Your task to perform on an android device: Open display settings Image 0: 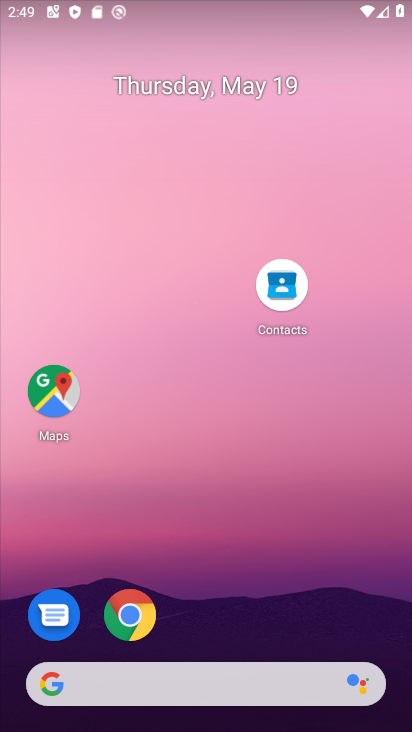
Step 0: drag from (219, 638) to (265, 196)
Your task to perform on an android device: Open display settings Image 1: 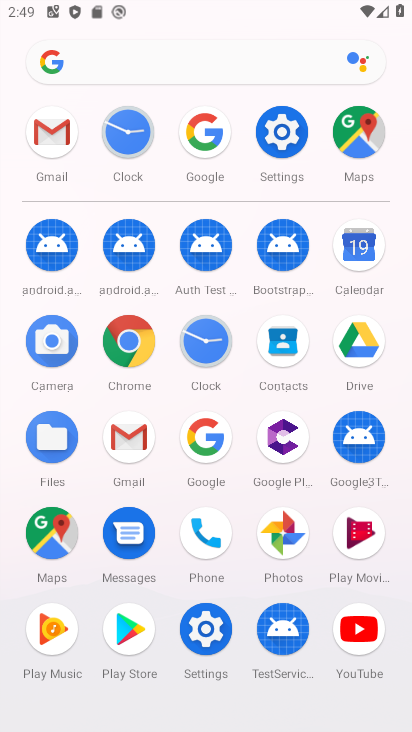
Step 1: click (293, 142)
Your task to perform on an android device: Open display settings Image 2: 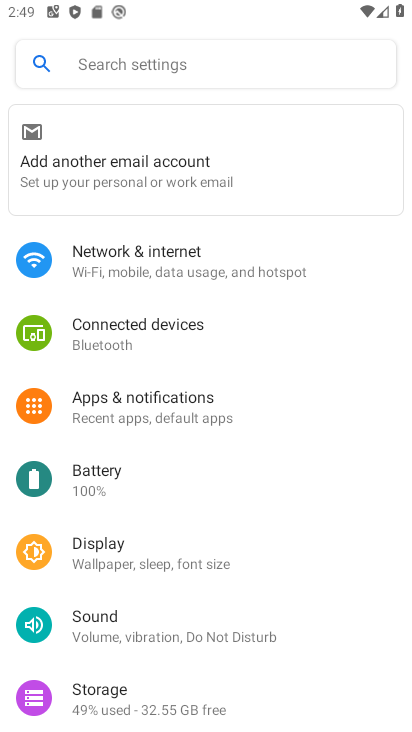
Step 2: click (274, 566)
Your task to perform on an android device: Open display settings Image 3: 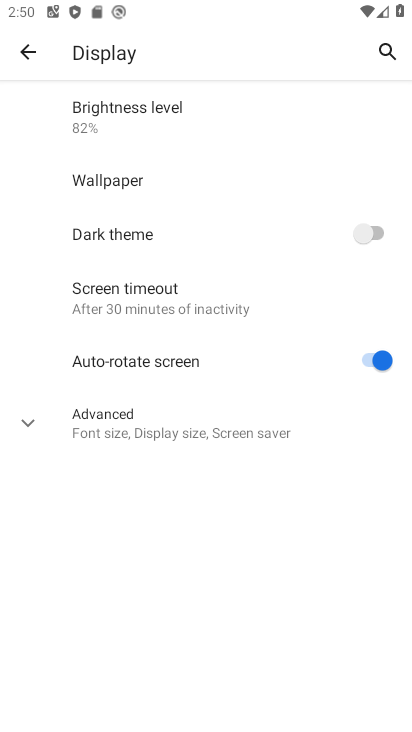
Step 3: task complete